Your task to perform on an android device: find photos in the google photos app Image 0: 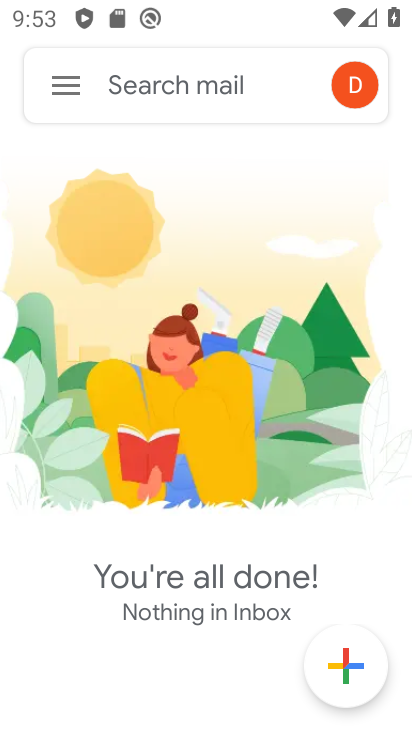
Step 0: press home button
Your task to perform on an android device: find photos in the google photos app Image 1: 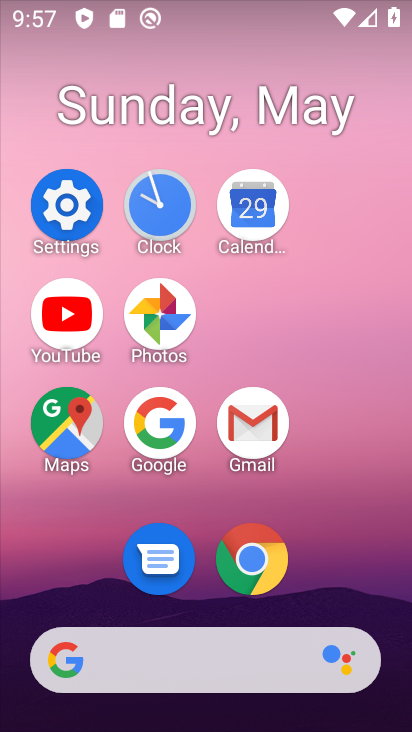
Step 1: click (165, 311)
Your task to perform on an android device: find photos in the google photos app Image 2: 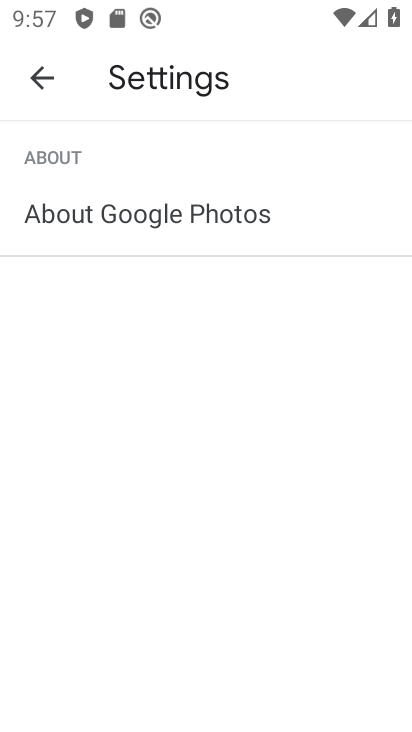
Step 2: click (64, 73)
Your task to perform on an android device: find photos in the google photos app Image 3: 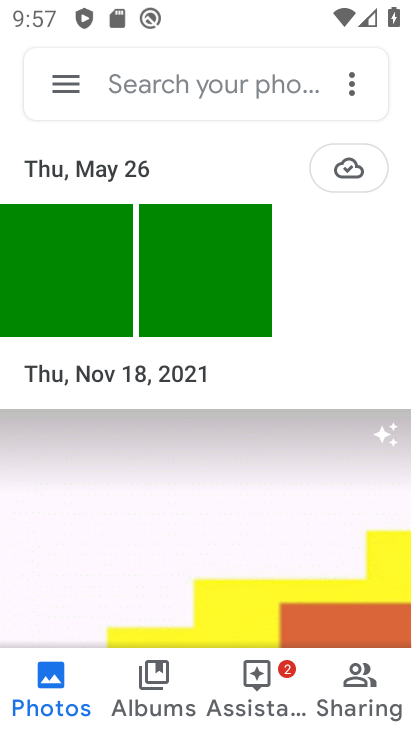
Step 3: task complete